Your task to perform on an android device: Check the news Image 0: 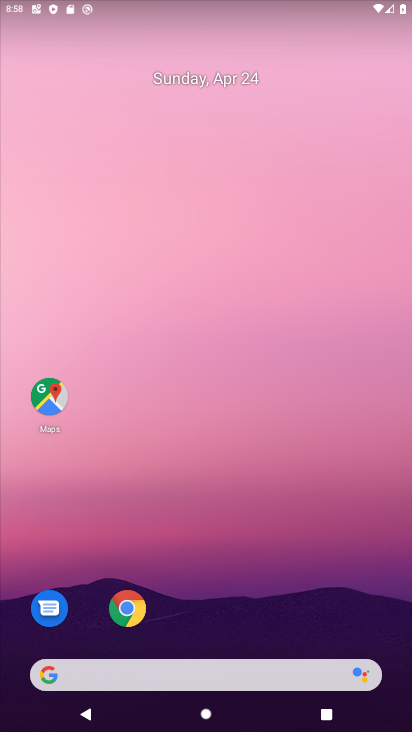
Step 0: drag from (285, 643) to (173, 235)
Your task to perform on an android device: Check the news Image 1: 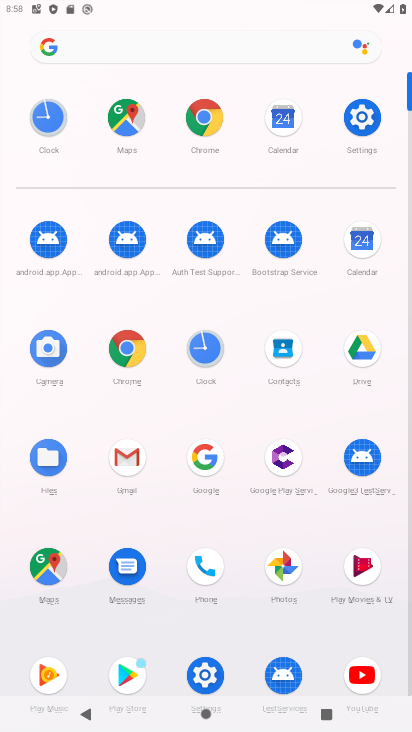
Step 1: click (69, 35)
Your task to perform on an android device: Check the news Image 2: 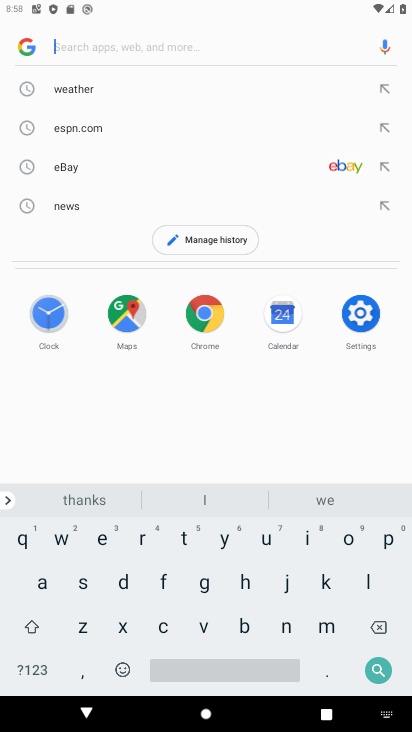
Step 2: drag from (34, 50) to (74, 193)
Your task to perform on an android device: Check the news Image 3: 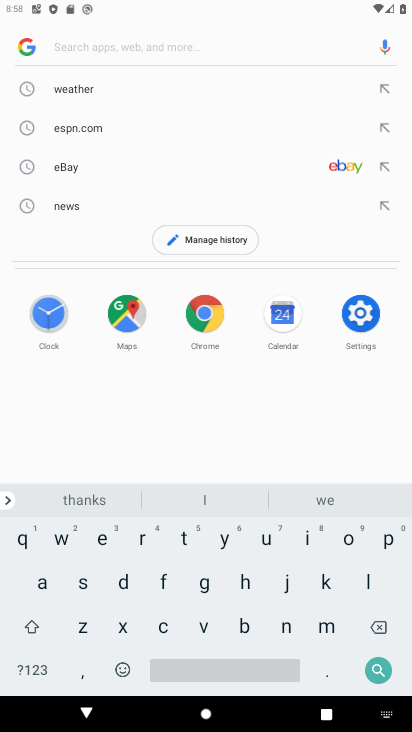
Step 3: click (72, 200)
Your task to perform on an android device: Check the news Image 4: 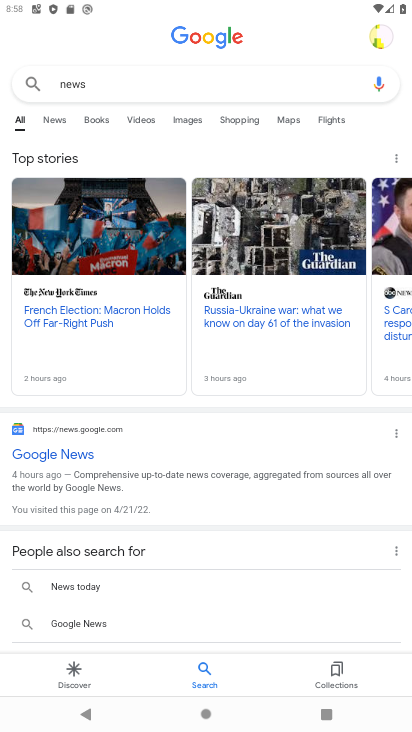
Step 4: task complete